Your task to perform on an android device: Search for "apple airpods" on walmart, select the first entry, add it to the cart, then select checkout. Image 0: 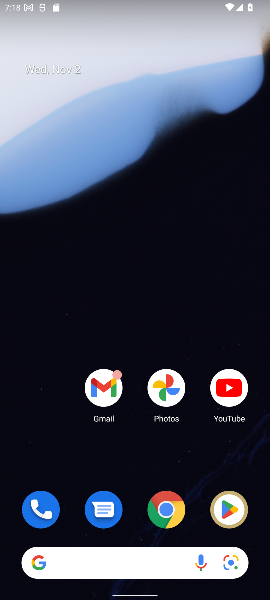
Step 0: click (133, 552)
Your task to perform on an android device: Search for "apple airpods" on walmart, select the first entry, add it to the cart, then select checkout. Image 1: 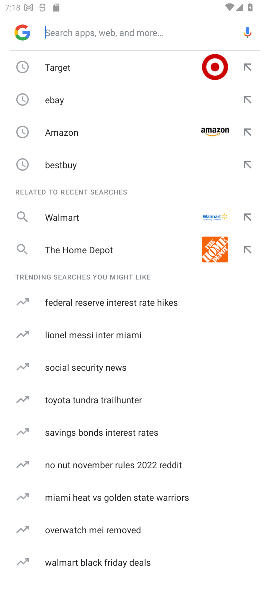
Step 1: click (133, 552)
Your task to perform on an android device: Search for "apple airpods" on walmart, select the first entry, add it to the cart, then select checkout. Image 2: 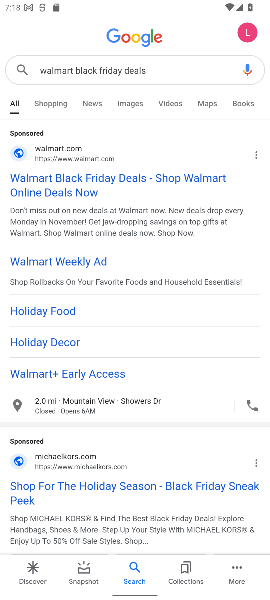
Step 2: drag from (167, 382) to (149, 193)
Your task to perform on an android device: Search for "apple airpods" on walmart, select the first entry, add it to the cart, then select checkout. Image 3: 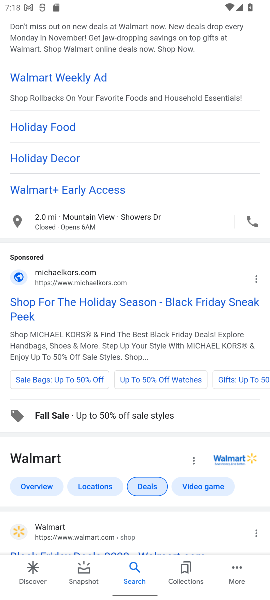
Step 3: click (54, 525)
Your task to perform on an android device: Search for "apple airpods" on walmart, select the first entry, add it to the cart, then select checkout. Image 4: 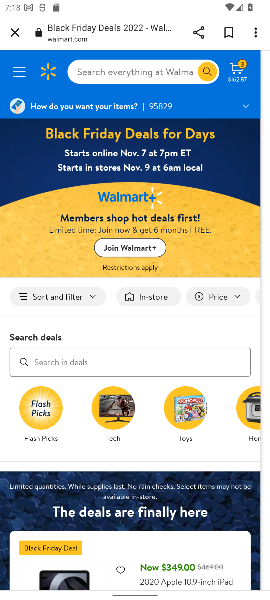
Step 4: click (127, 73)
Your task to perform on an android device: Search for "apple airpods" on walmart, select the first entry, add it to the cart, then select checkout. Image 5: 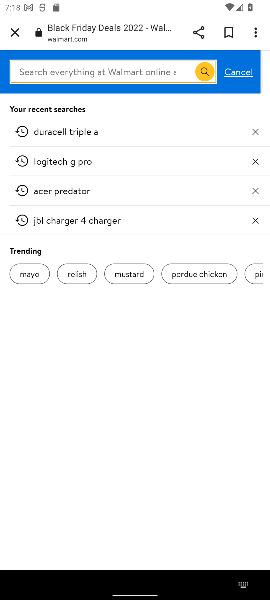
Step 5: type "apple airpods"
Your task to perform on an android device: Search for "apple airpods" on walmart, select the first entry, add it to the cart, then select checkout. Image 6: 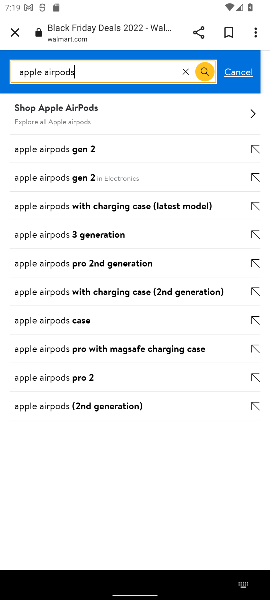
Step 6: click (207, 71)
Your task to perform on an android device: Search for "apple airpods" on walmart, select the first entry, add it to the cart, then select checkout. Image 7: 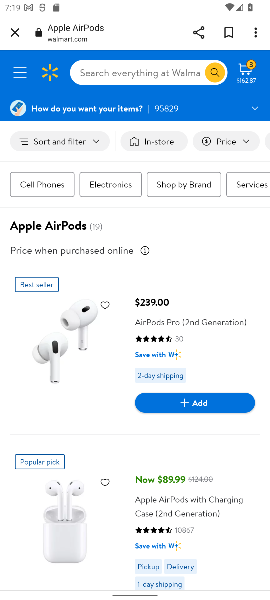
Step 7: click (185, 407)
Your task to perform on an android device: Search for "apple airpods" on walmart, select the first entry, add it to the cart, then select checkout. Image 8: 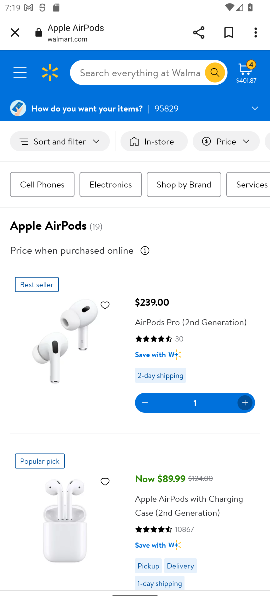
Step 8: click (251, 63)
Your task to perform on an android device: Search for "apple airpods" on walmart, select the first entry, add it to the cart, then select checkout. Image 9: 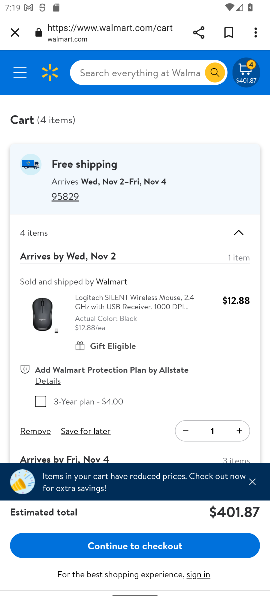
Step 9: click (148, 551)
Your task to perform on an android device: Search for "apple airpods" on walmart, select the first entry, add it to the cart, then select checkout. Image 10: 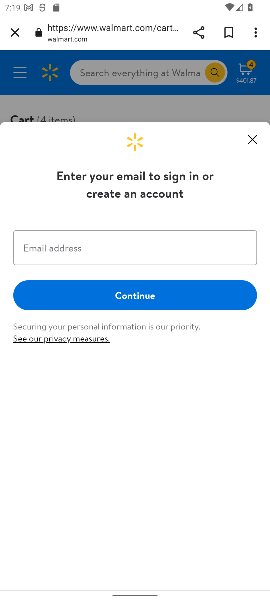
Step 10: task complete